Your task to perform on an android device: turn off picture-in-picture Image 0: 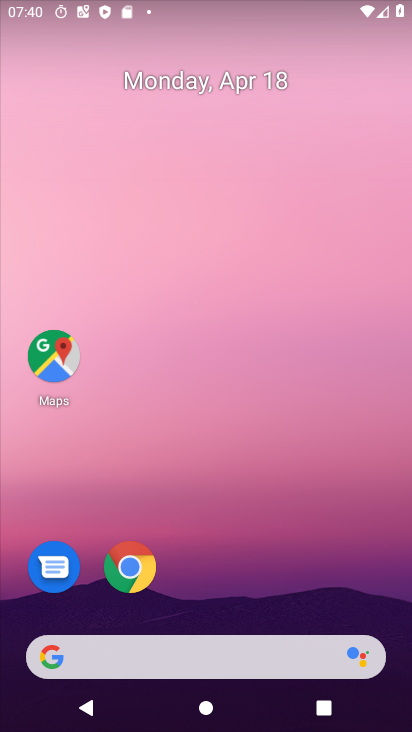
Step 0: click (145, 563)
Your task to perform on an android device: turn off picture-in-picture Image 1: 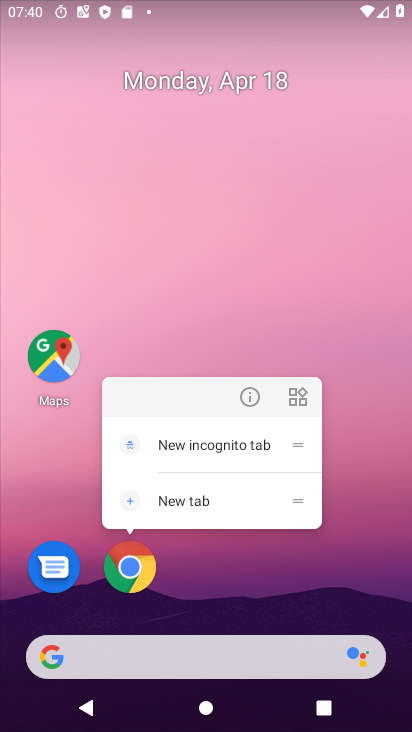
Step 1: click (245, 396)
Your task to perform on an android device: turn off picture-in-picture Image 2: 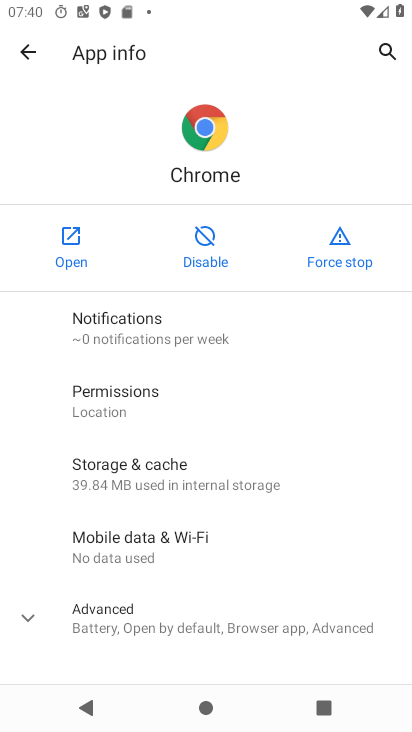
Step 2: drag from (274, 606) to (269, 194)
Your task to perform on an android device: turn off picture-in-picture Image 3: 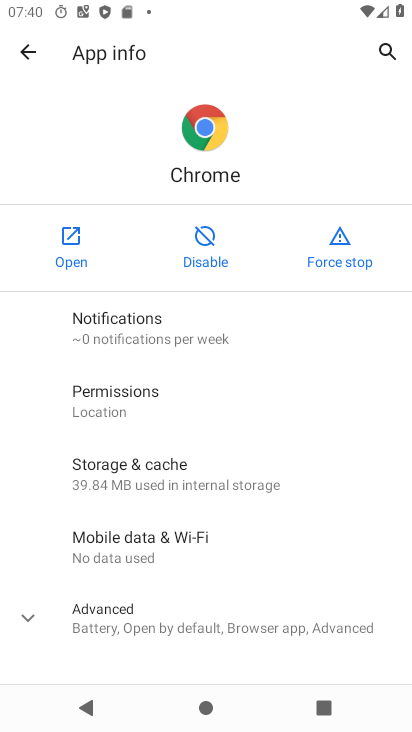
Step 3: click (119, 634)
Your task to perform on an android device: turn off picture-in-picture Image 4: 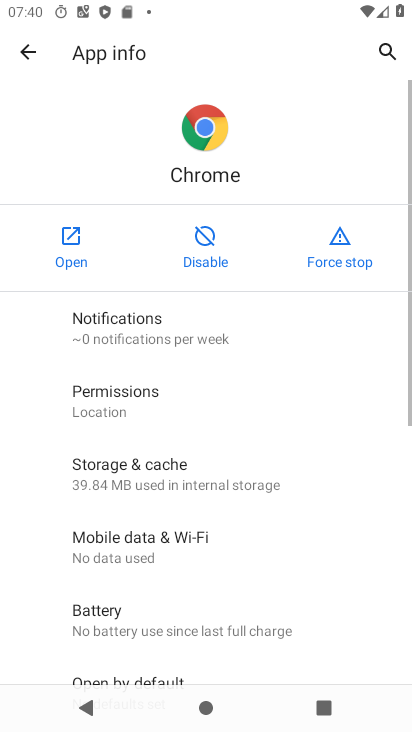
Step 4: drag from (119, 634) to (72, 148)
Your task to perform on an android device: turn off picture-in-picture Image 5: 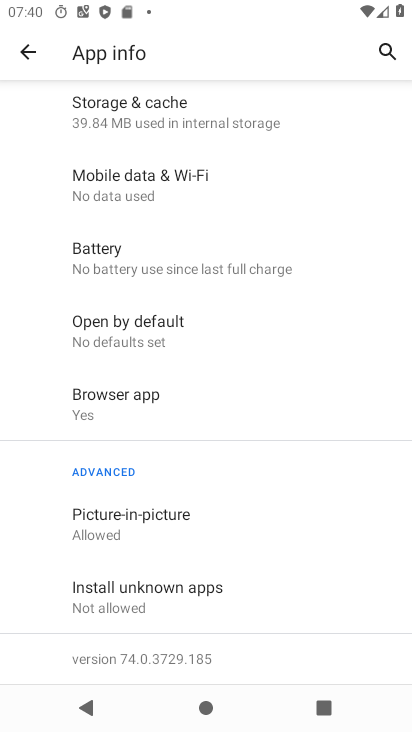
Step 5: click (132, 516)
Your task to perform on an android device: turn off picture-in-picture Image 6: 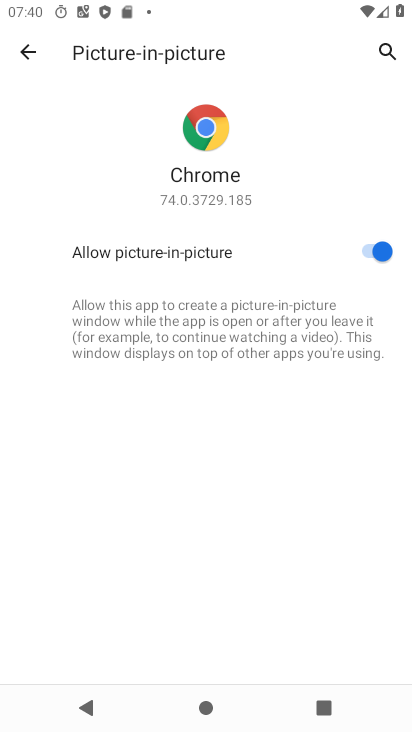
Step 6: click (376, 241)
Your task to perform on an android device: turn off picture-in-picture Image 7: 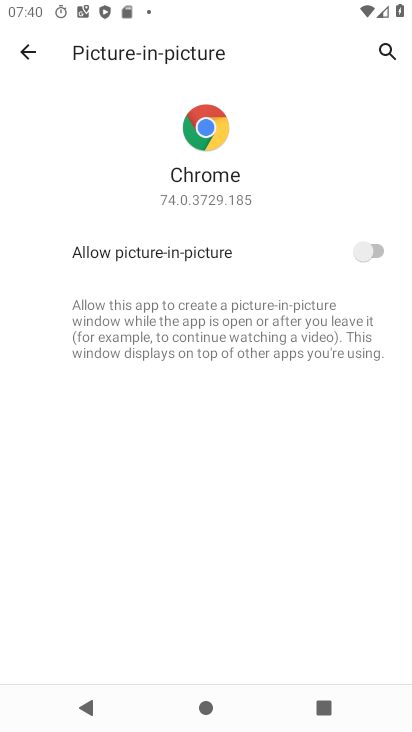
Step 7: task complete